Your task to perform on an android device: open app "TextNow: Call + Text Unlimited" (install if not already installed), go to login, and select forgot password Image 0: 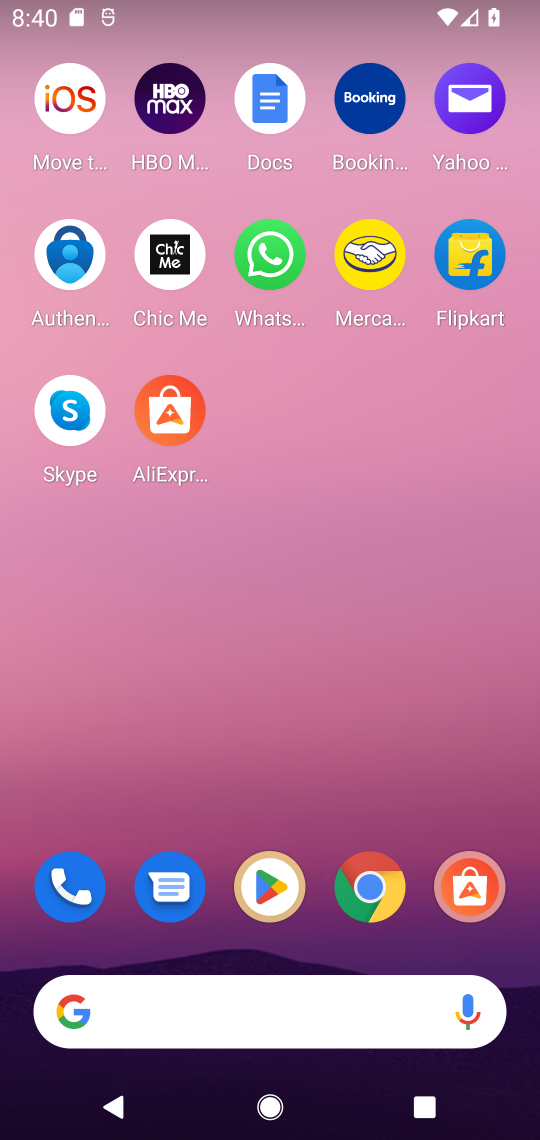
Step 0: click (256, 919)
Your task to perform on an android device: open app "TextNow: Call + Text Unlimited" (install if not already installed), go to login, and select forgot password Image 1: 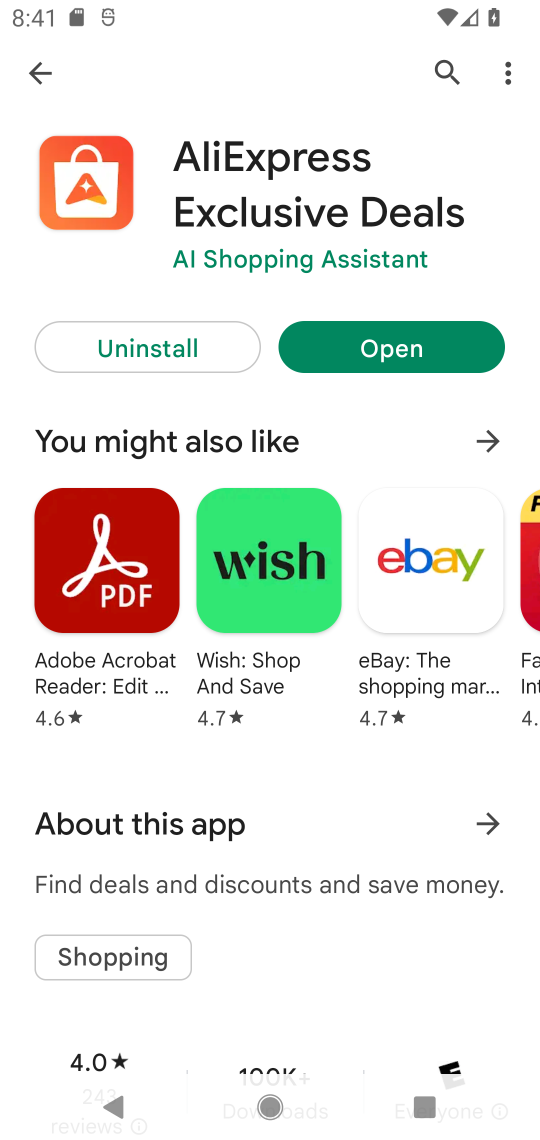
Step 1: click (431, 98)
Your task to perform on an android device: open app "TextNow: Call + Text Unlimited" (install if not already installed), go to login, and select forgot password Image 2: 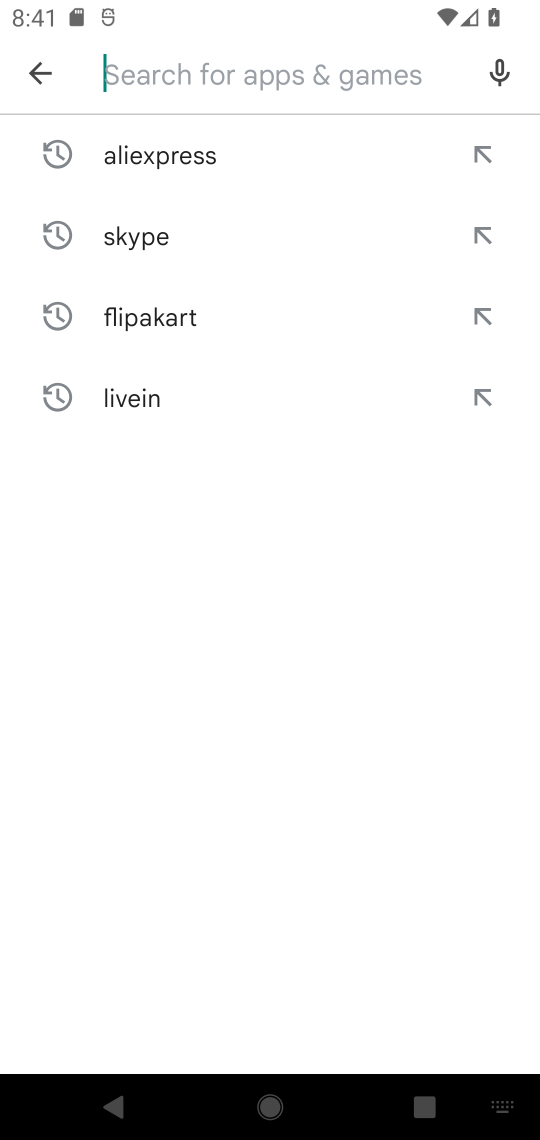
Step 2: type "textnow"
Your task to perform on an android device: open app "TextNow: Call + Text Unlimited" (install if not already installed), go to login, and select forgot password Image 3: 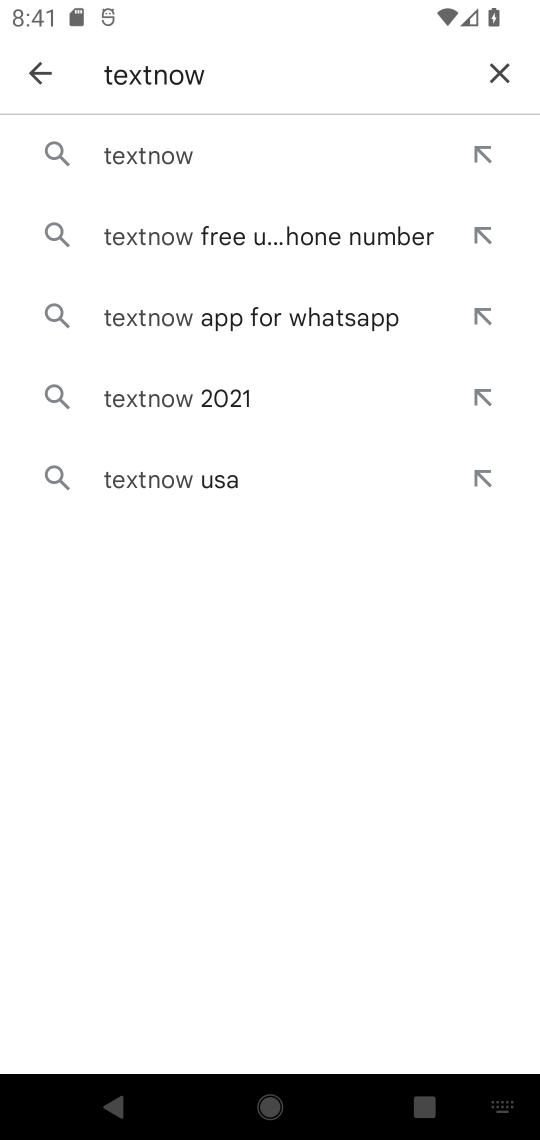
Step 3: click (261, 181)
Your task to perform on an android device: open app "TextNow: Call + Text Unlimited" (install if not already installed), go to login, and select forgot password Image 4: 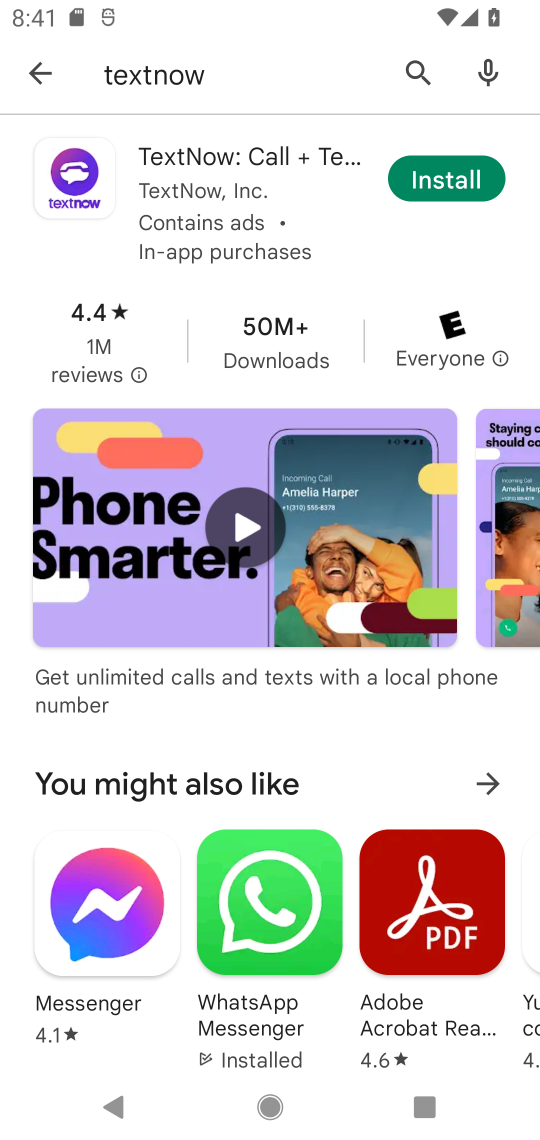
Step 4: click (417, 186)
Your task to perform on an android device: open app "TextNow: Call + Text Unlimited" (install if not already installed), go to login, and select forgot password Image 5: 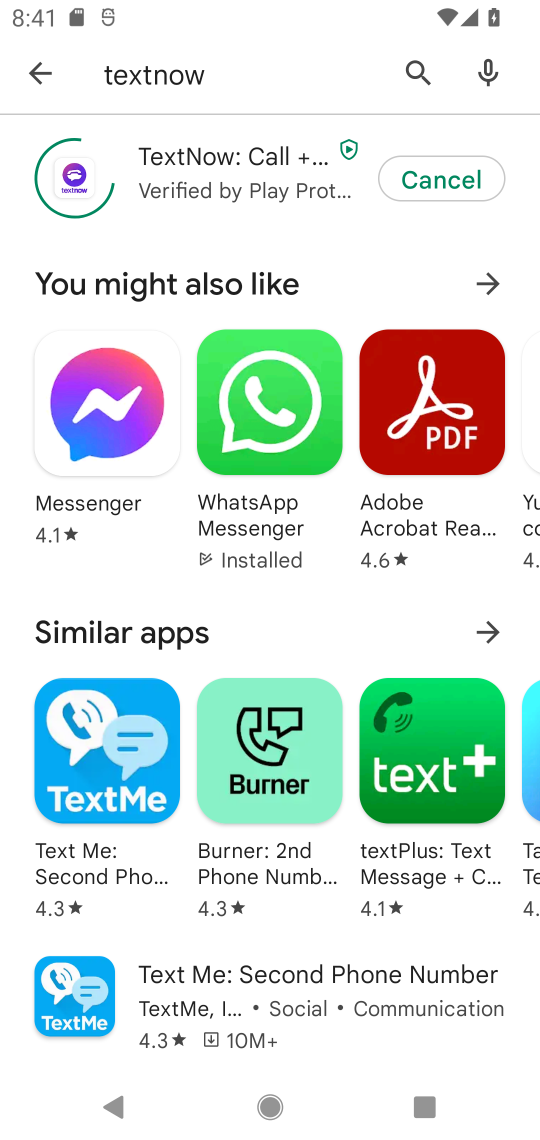
Step 5: click (417, 186)
Your task to perform on an android device: open app "TextNow: Call + Text Unlimited" (install if not already installed), go to login, and select forgot password Image 6: 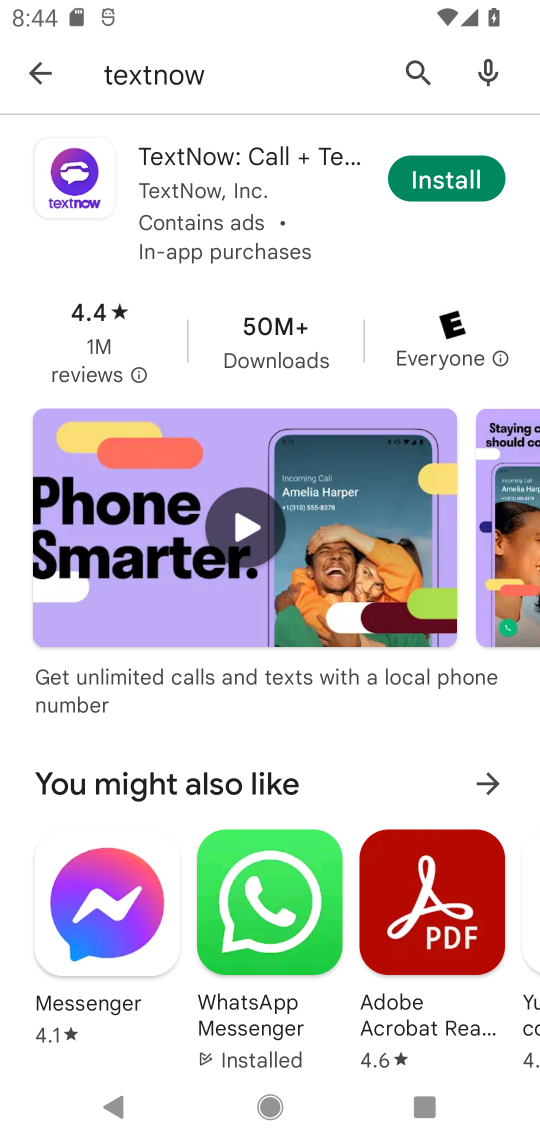
Step 6: click (462, 174)
Your task to perform on an android device: open app "TextNow: Call + Text Unlimited" (install if not already installed), go to login, and select forgot password Image 7: 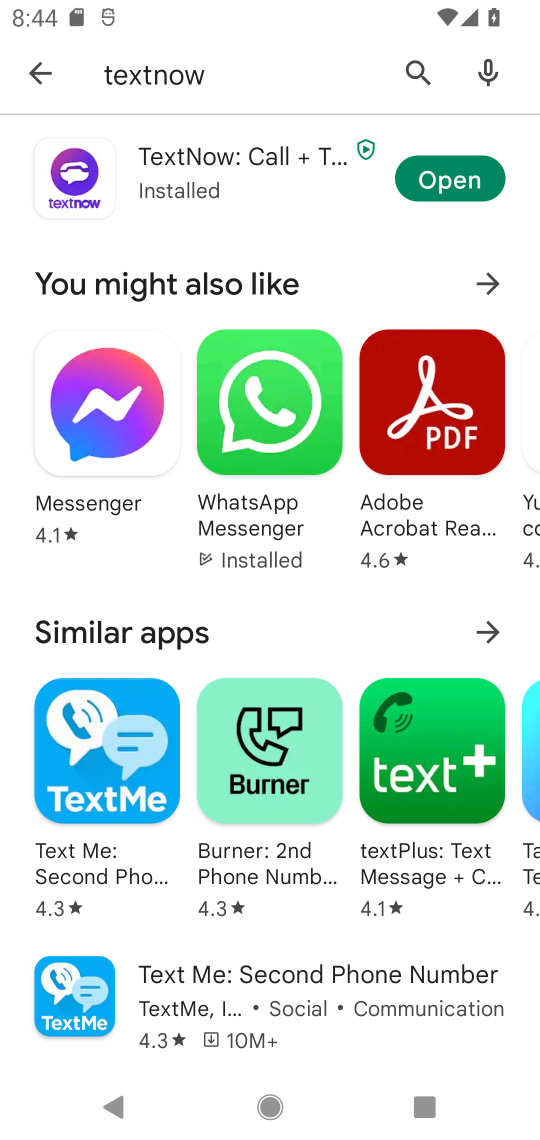
Step 7: click (479, 196)
Your task to perform on an android device: open app "TextNow: Call + Text Unlimited" (install if not already installed), go to login, and select forgot password Image 8: 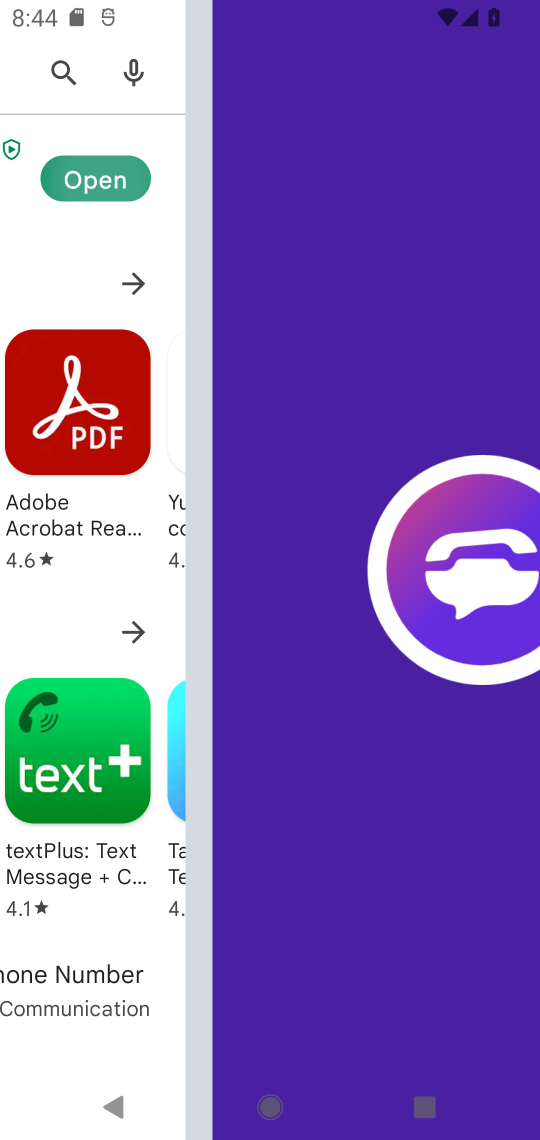
Step 8: task complete